Your task to perform on an android device: toggle location history Image 0: 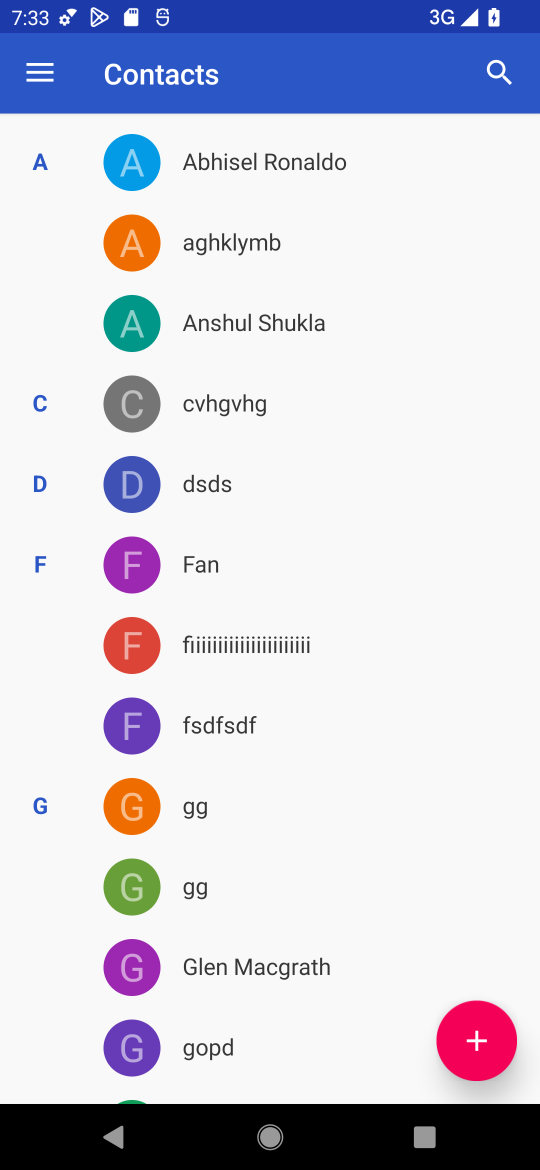
Step 0: press home button
Your task to perform on an android device: toggle location history Image 1: 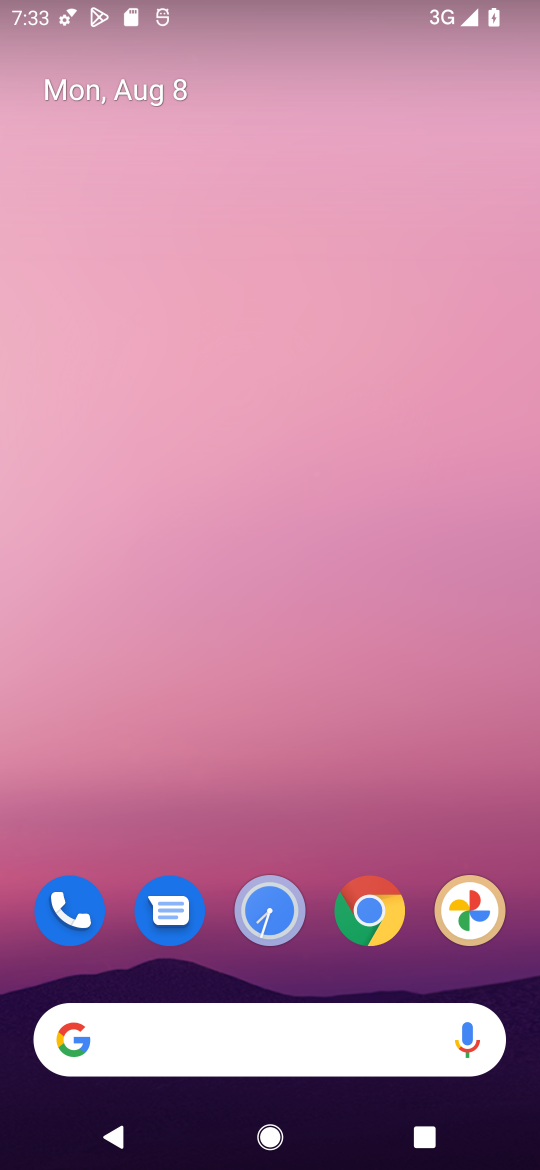
Step 1: drag from (288, 794) to (256, 103)
Your task to perform on an android device: toggle location history Image 2: 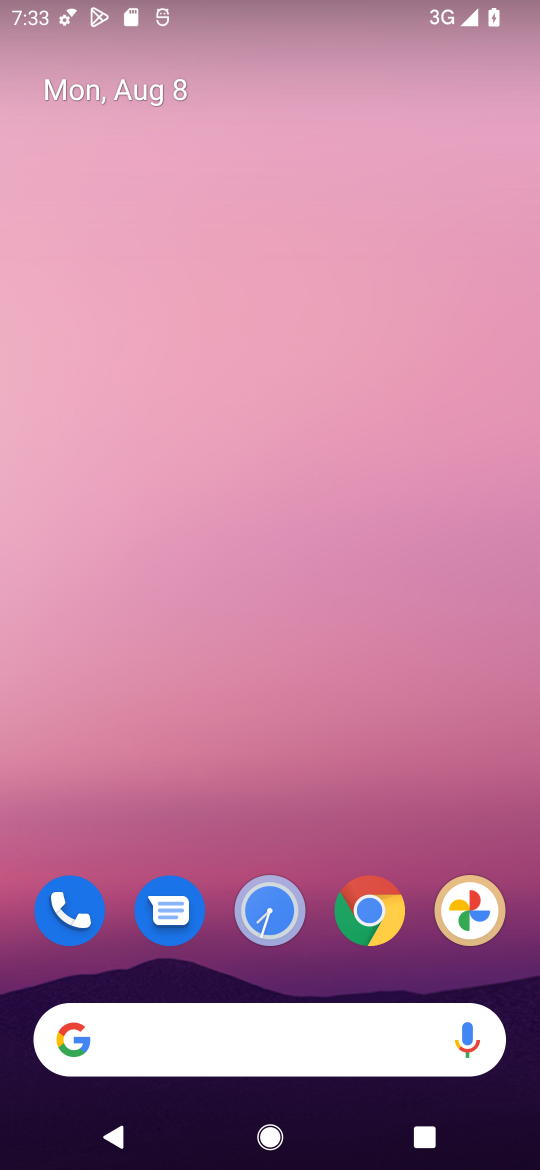
Step 2: drag from (207, 896) to (244, 48)
Your task to perform on an android device: toggle location history Image 3: 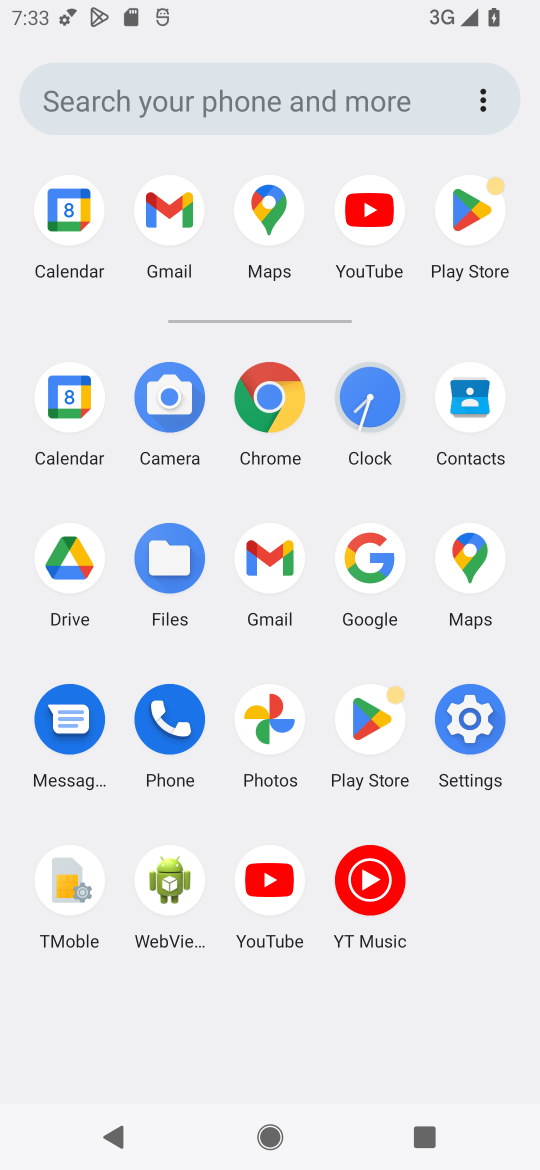
Step 3: click (464, 716)
Your task to perform on an android device: toggle location history Image 4: 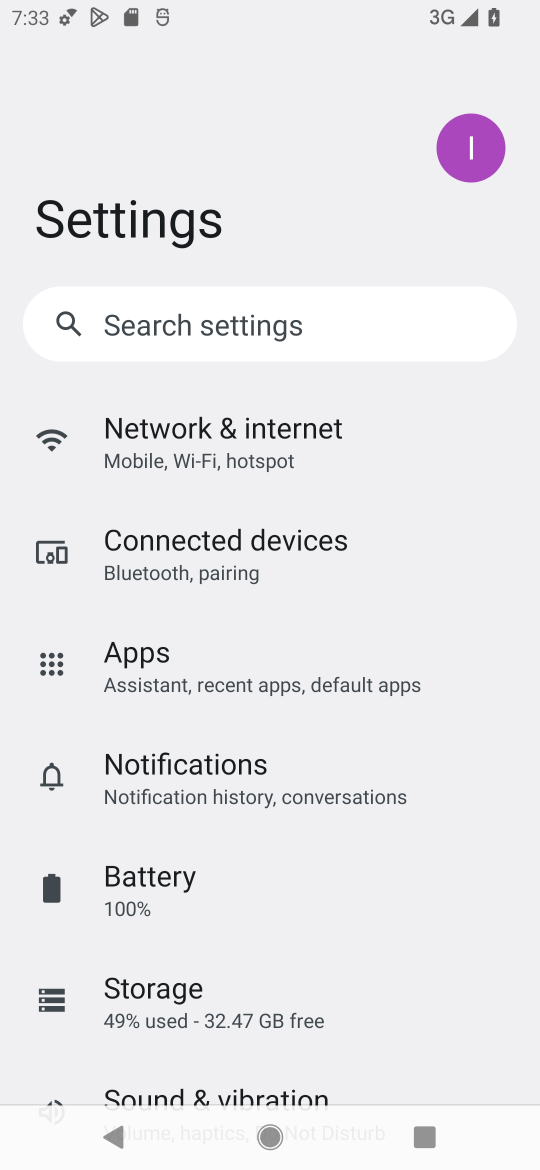
Step 4: drag from (455, 907) to (380, 397)
Your task to perform on an android device: toggle location history Image 5: 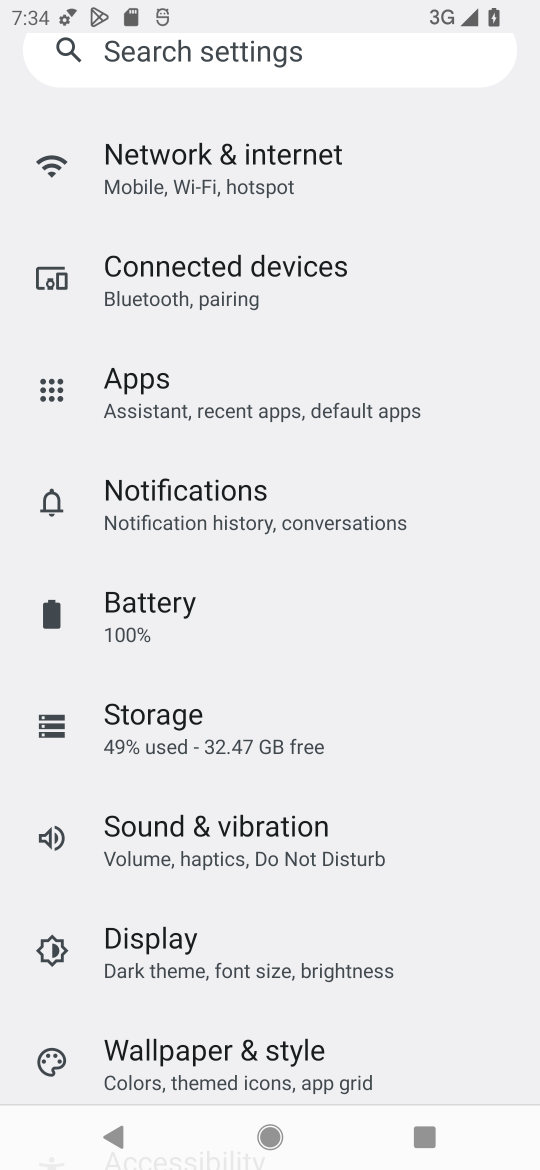
Step 5: drag from (425, 872) to (304, 393)
Your task to perform on an android device: toggle location history Image 6: 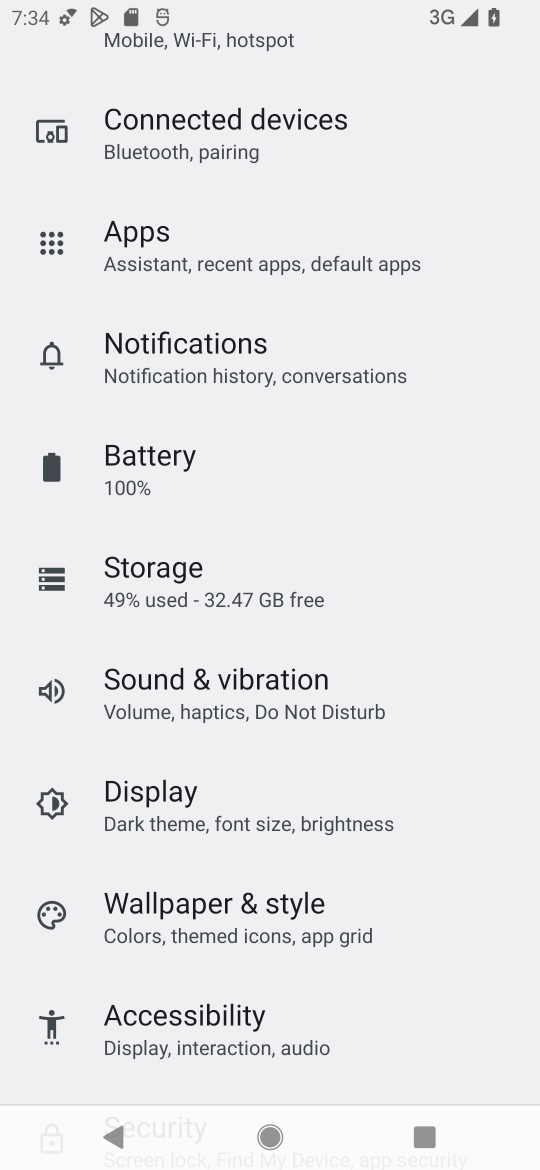
Step 6: drag from (394, 835) to (306, 451)
Your task to perform on an android device: toggle location history Image 7: 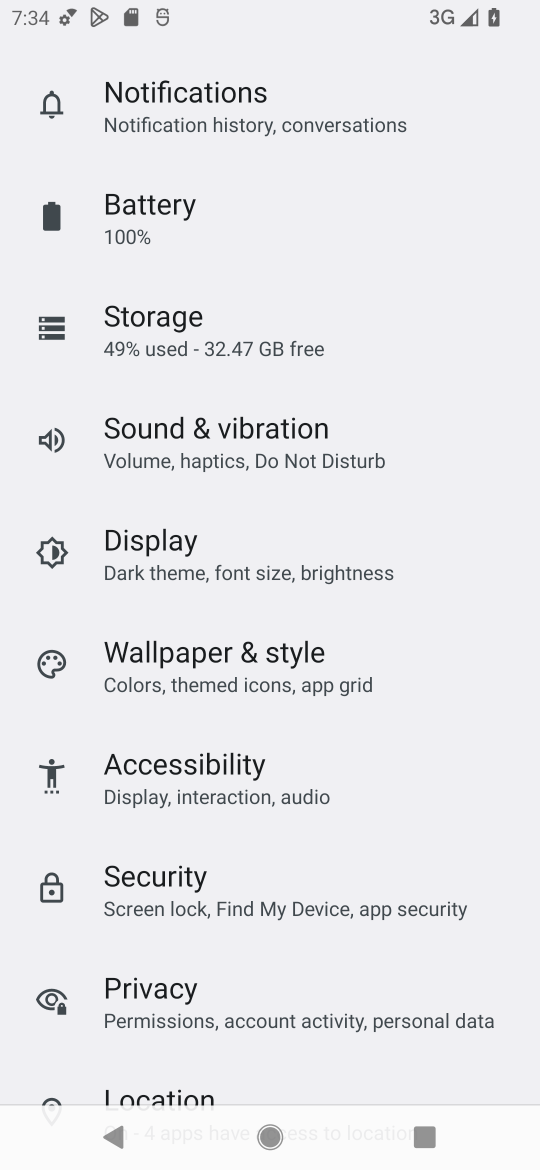
Step 7: click (164, 1097)
Your task to perform on an android device: toggle location history Image 8: 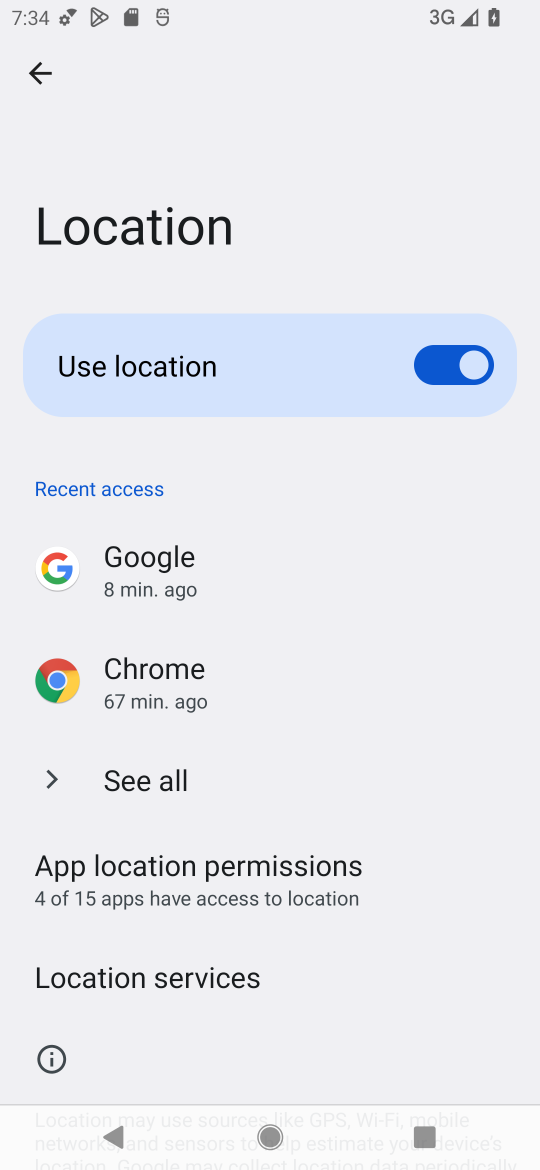
Step 8: click (214, 983)
Your task to perform on an android device: toggle location history Image 9: 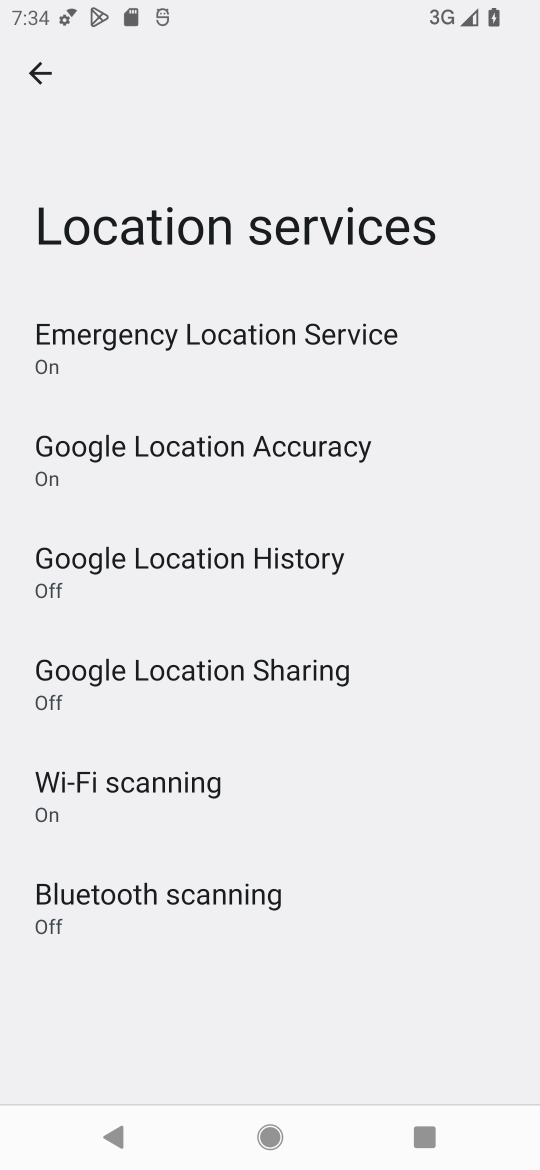
Step 9: click (136, 553)
Your task to perform on an android device: toggle location history Image 10: 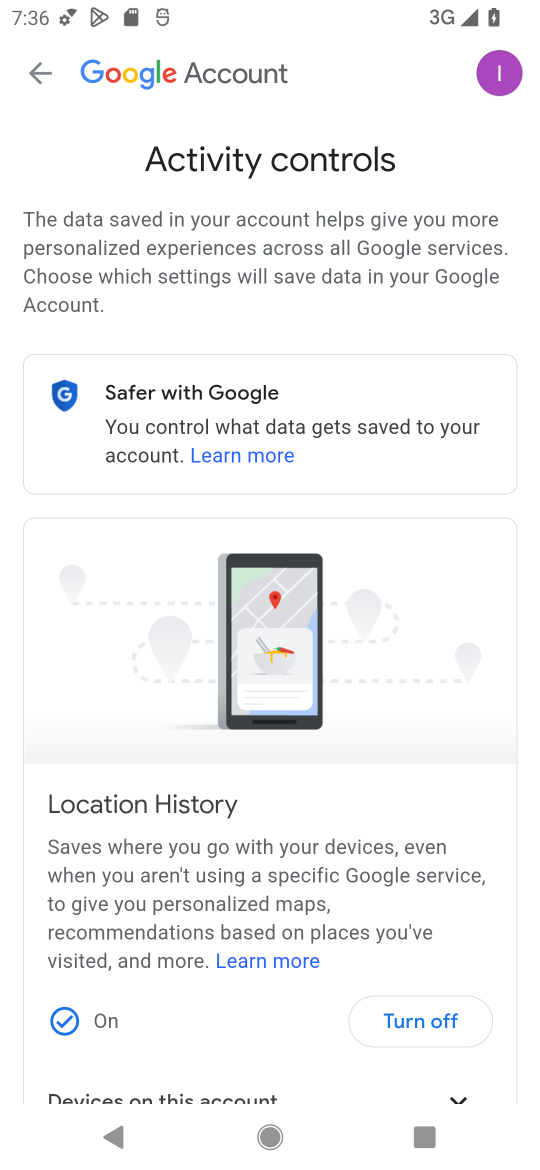
Step 10: task complete